Your task to perform on an android device: Show me the alarms in the clock app Image 0: 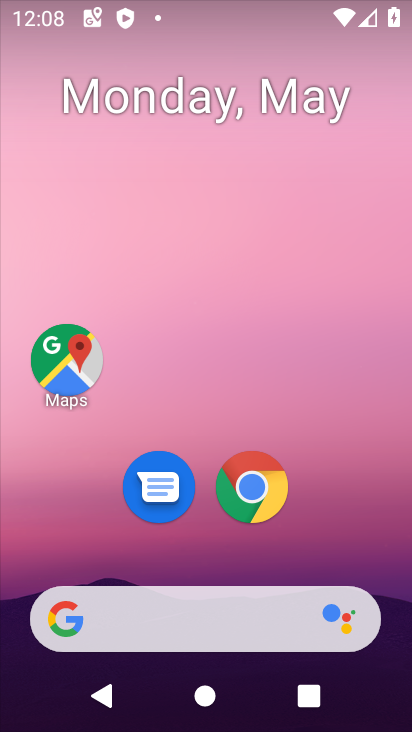
Step 0: drag from (360, 553) to (369, 2)
Your task to perform on an android device: Show me the alarms in the clock app Image 1: 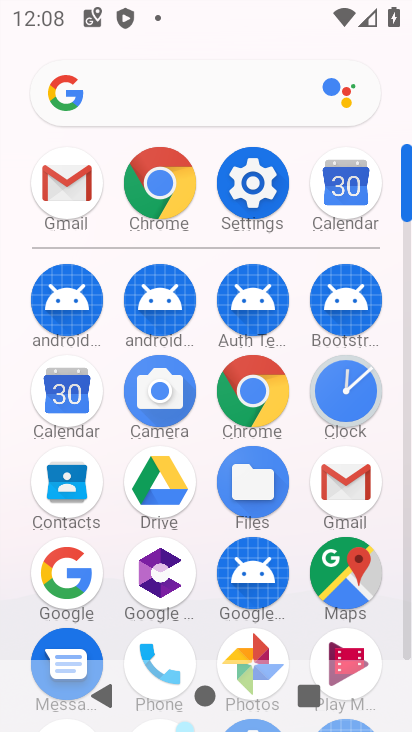
Step 1: click (337, 402)
Your task to perform on an android device: Show me the alarms in the clock app Image 2: 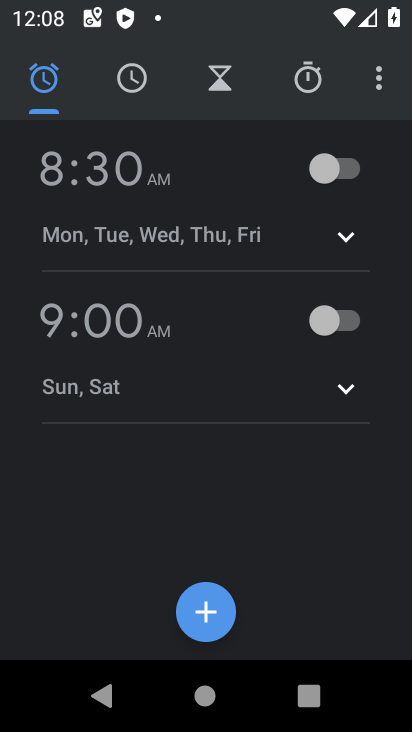
Step 2: task complete